Your task to perform on an android device: search for starred emails in the gmail app Image 0: 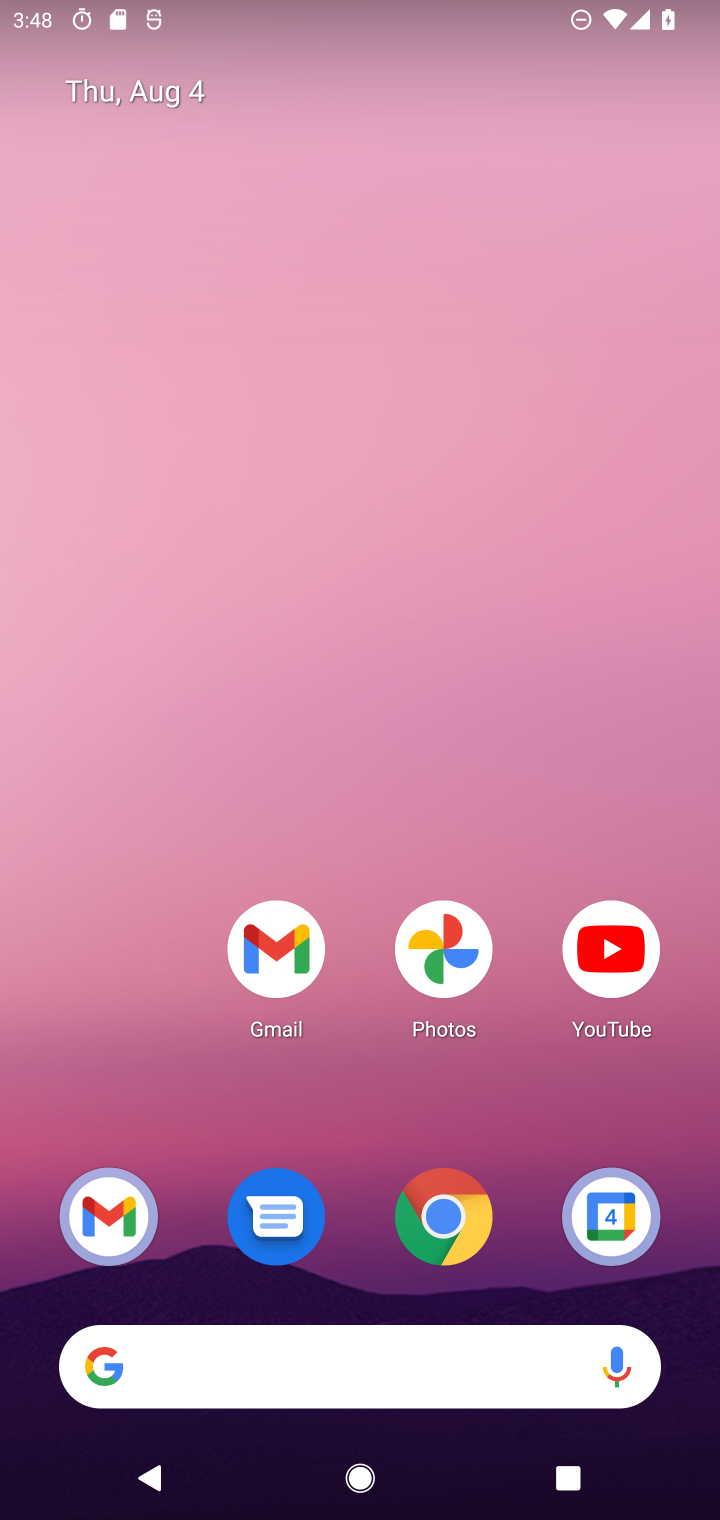
Step 0: click (289, 936)
Your task to perform on an android device: search for starred emails in the gmail app Image 1: 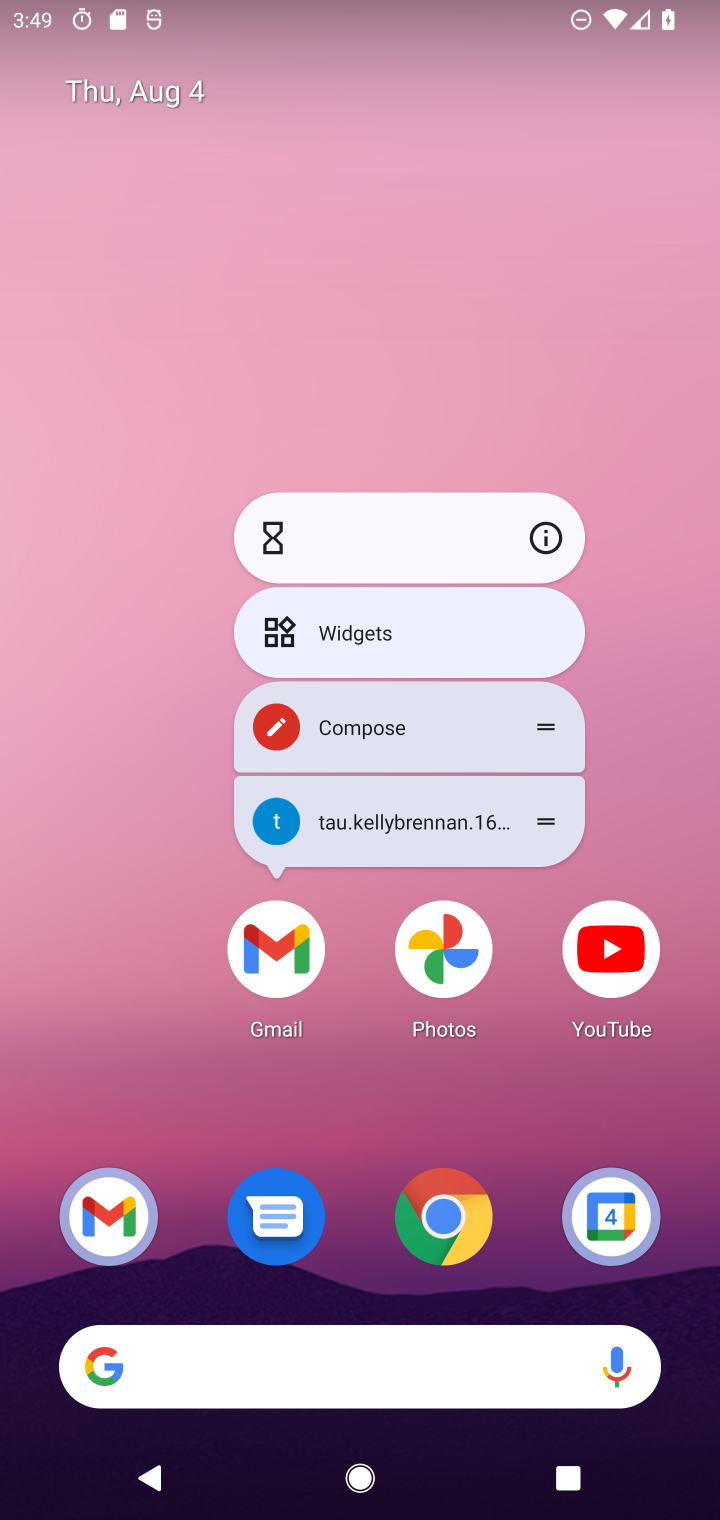
Step 1: click (255, 933)
Your task to perform on an android device: search for starred emails in the gmail app Image 2: 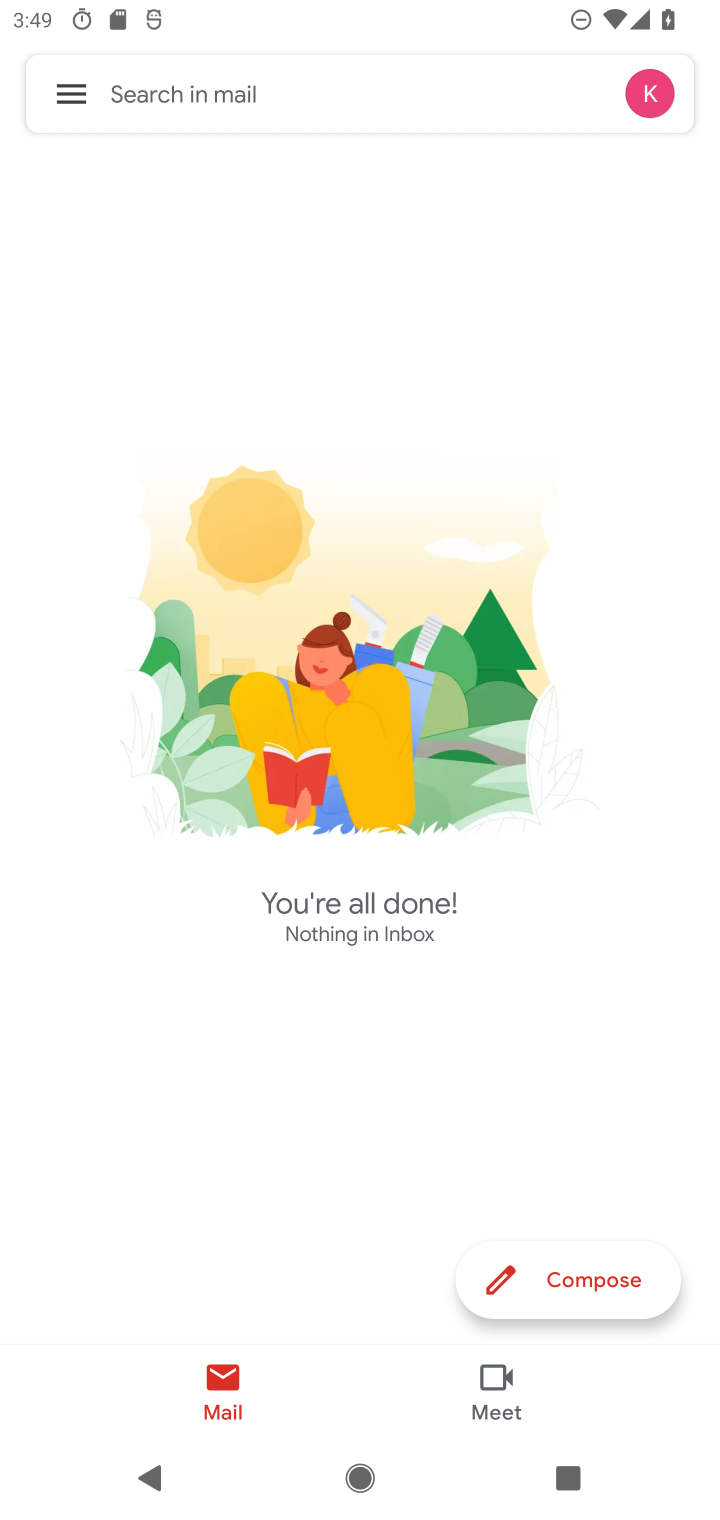
Step 2: click (51, 80)
Your task to perform on an android device: search for starred emails in the gmail app Image 3: 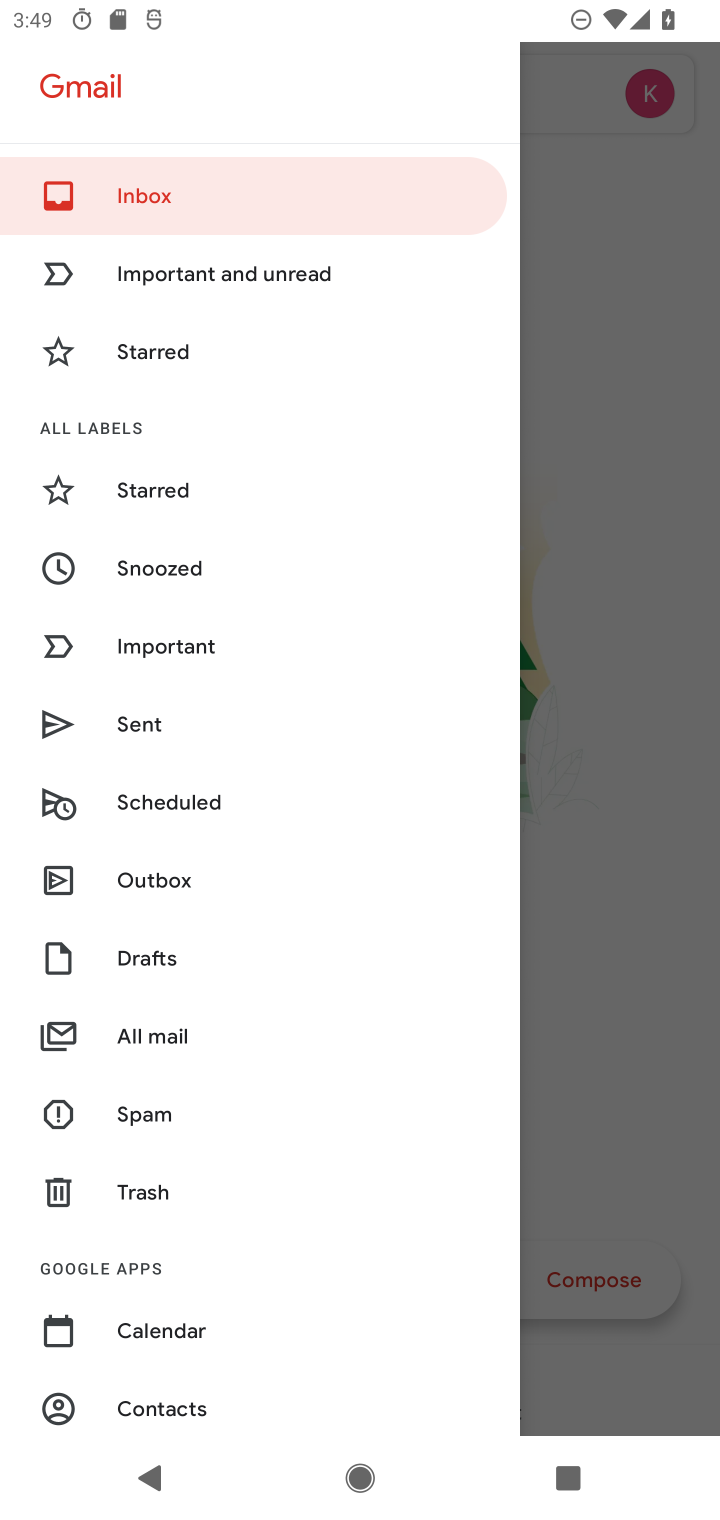
Step 3: click (136, 485)
Your task to perform on an android device: search for starred emails in the gmail app Image 4: 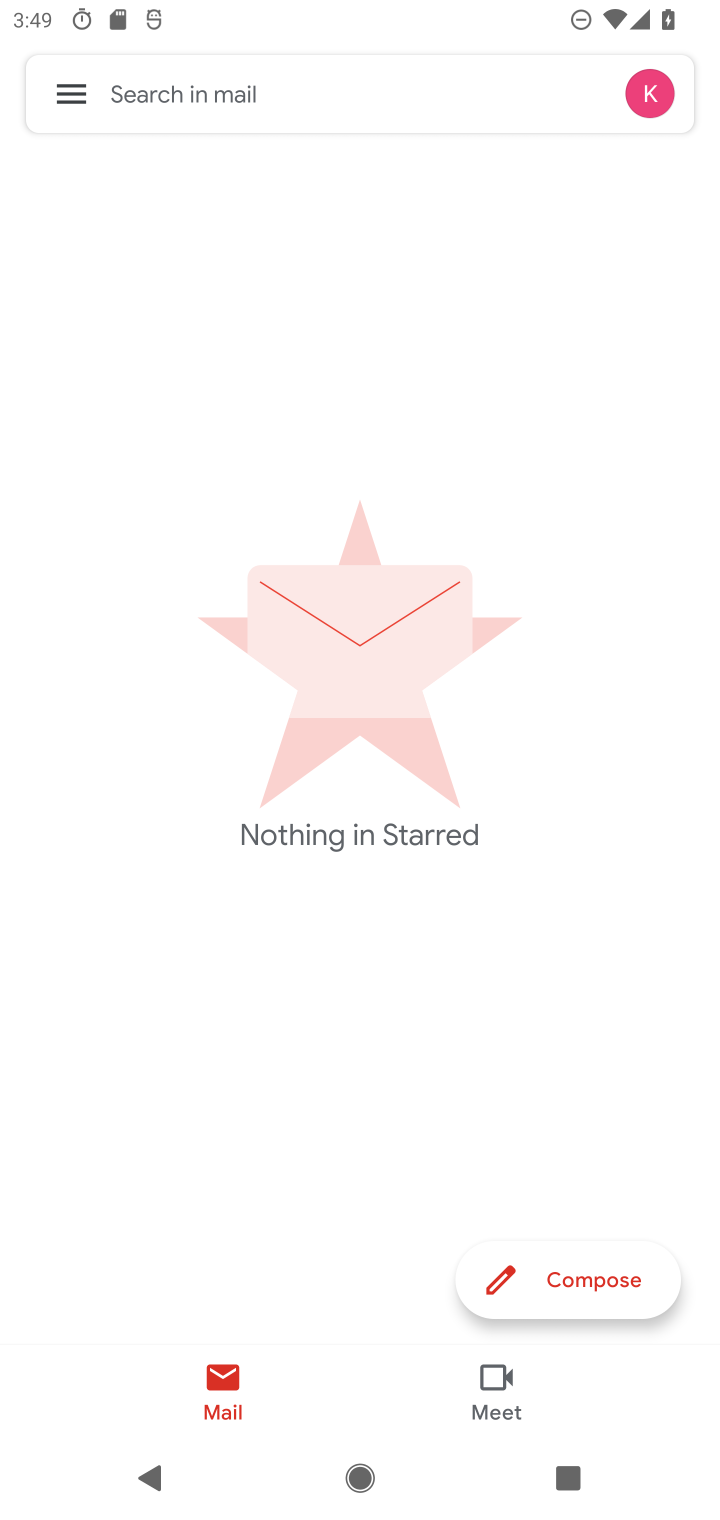
Step 4: click (69, 82)
Your task to perform on an android device: search for starred emails in the gmail app Image 5: 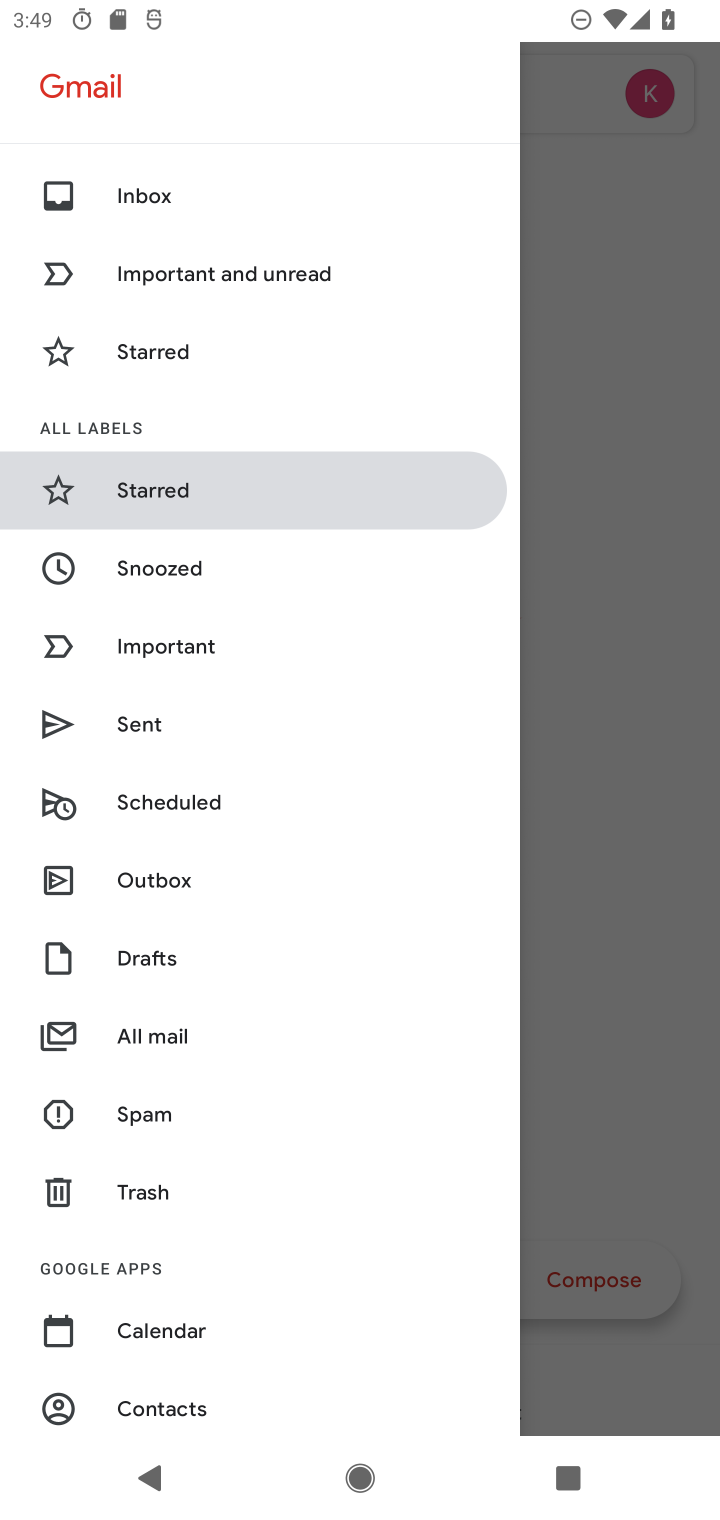
Step 5: task complete